Your task to perform on an android device: Check the weather Image 0: 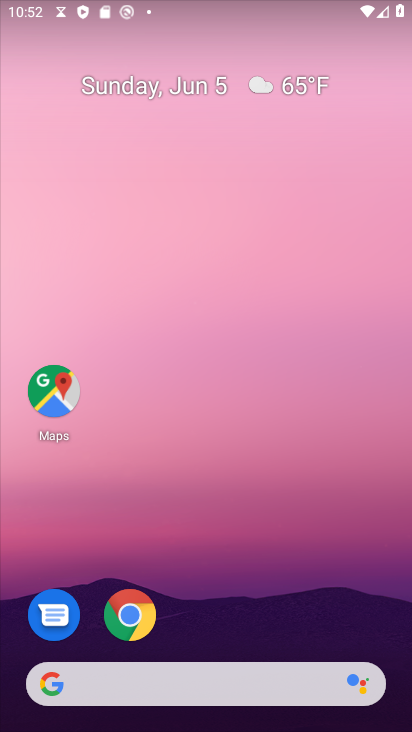
Step 0: drag from (286, 629) to (242, 116)
Your task to perform on an android device: Check the weather Image 1: 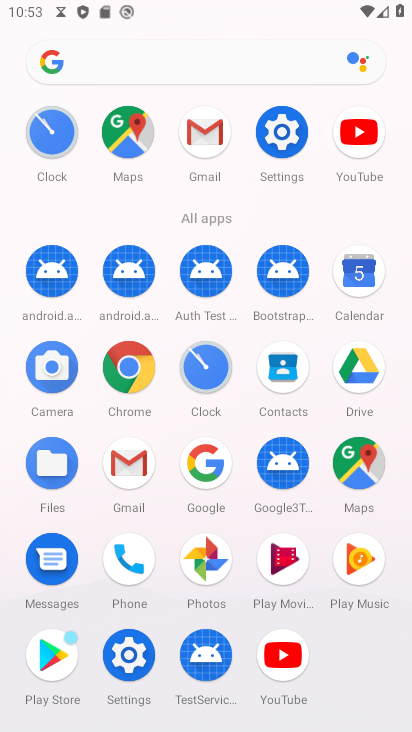
Step 1: click (200, 463)
Your task to perform on an android device: Check the weather Image 2: 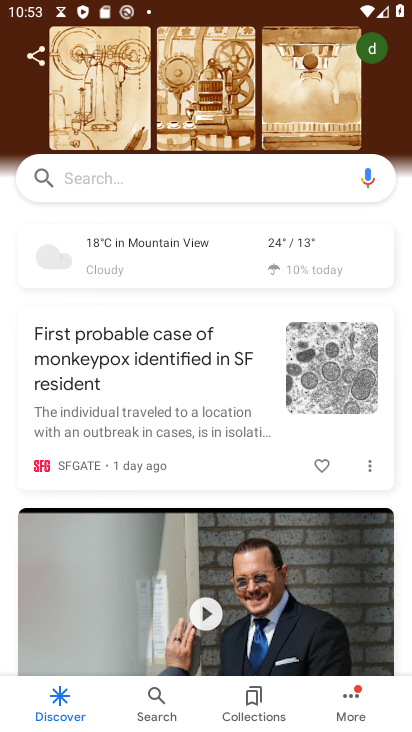
Step 2: click (201, 256)
Your task to perform on an android device: Check the weather Image 3: 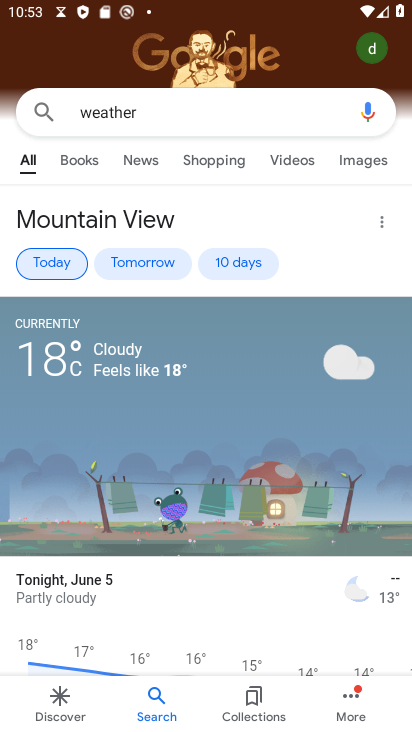
Step 3: task complete